Your task to perform on an android device: Open Google Chrome Image 0: 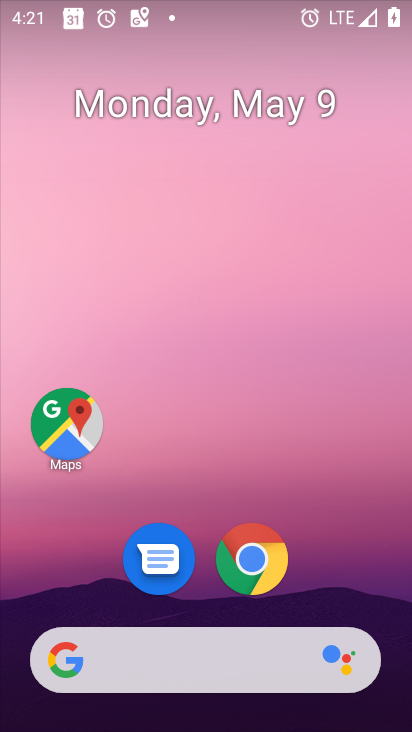
Step 0: click (256, 562)
Your task to perform on an android device: Open Google Chrome Image 1: 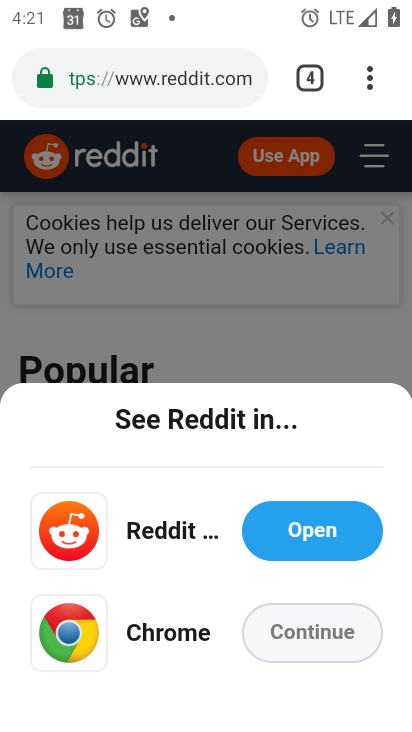
Step 1: task complete